Your task to perform on an android device: turn off wifi Image 0: 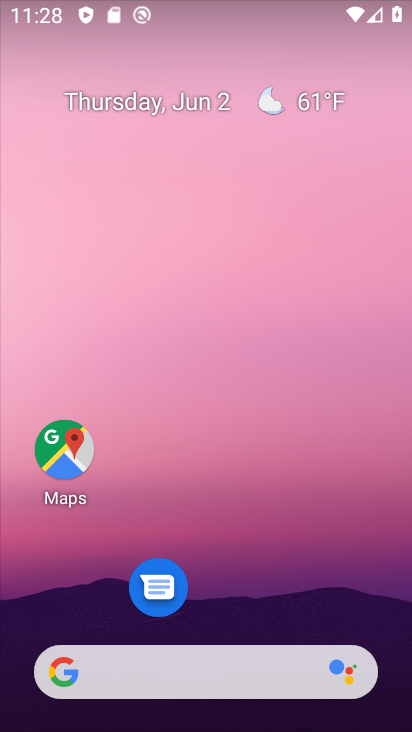
Step 0: drag from (183, 618) to (230, 10)
Your task to perform on an android device: turn off wifi Image 1: 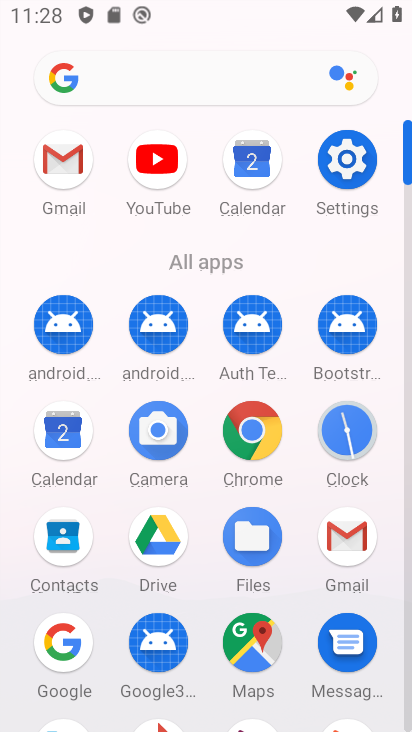
Step 1: click (351, 166)
Your task to perform on an android device: turn off wifi Image 2: 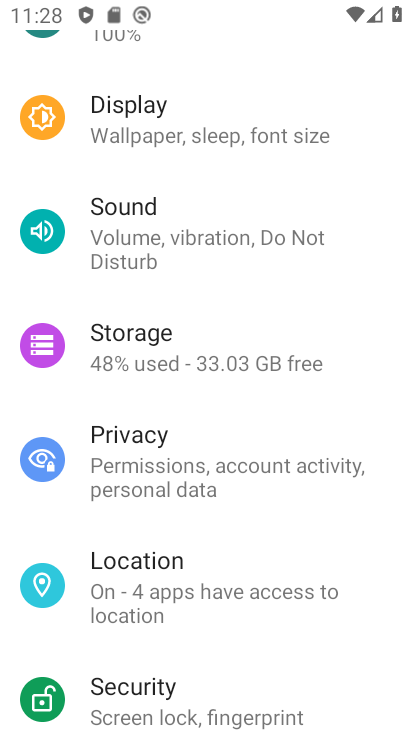
Step 2: drag from (166, 155) to (145, 567)
Your task to perform on an android device: turn off wifi Image 3: 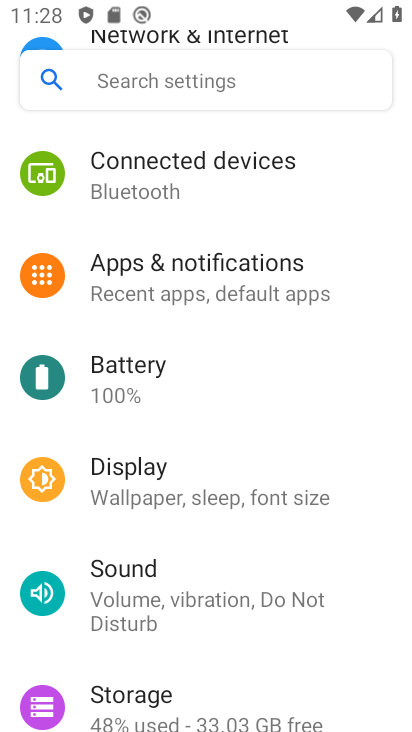
Step 3: drag from (145, 180) to (130, 669)
Your task to perform on an android device: turn off wifi Image 4: 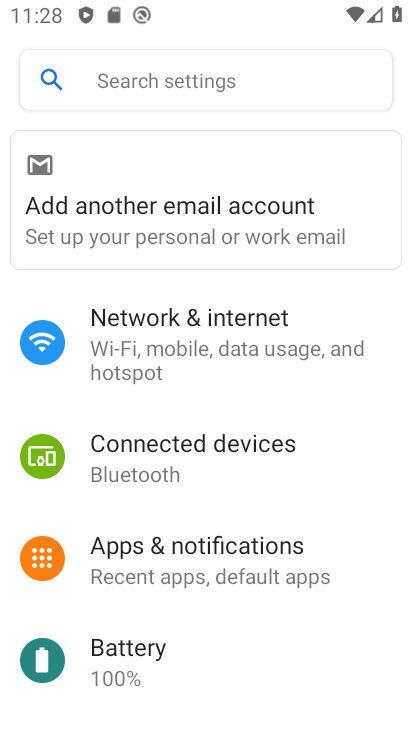
Step 4: click (190, 318)
Your task to perform on an android device: turn off wifi Image 5: 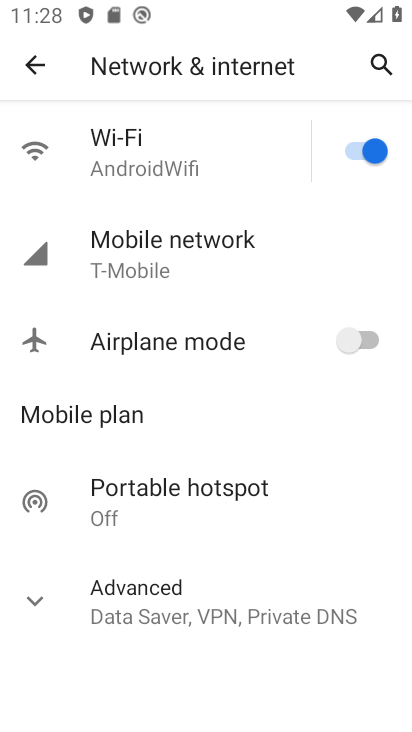
Step 5: click (345, 147)
Your task to perform on an android device: turn off wifi Image 6: 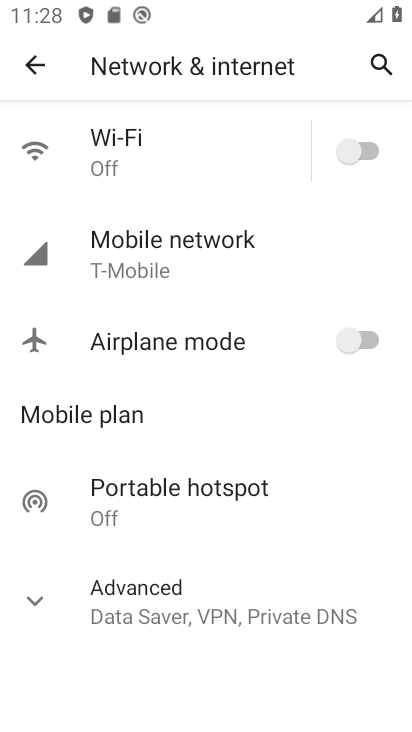
Step 6: task complete